Your task to perform on an android device: turn on showing notifications on the lock screen Image 0: 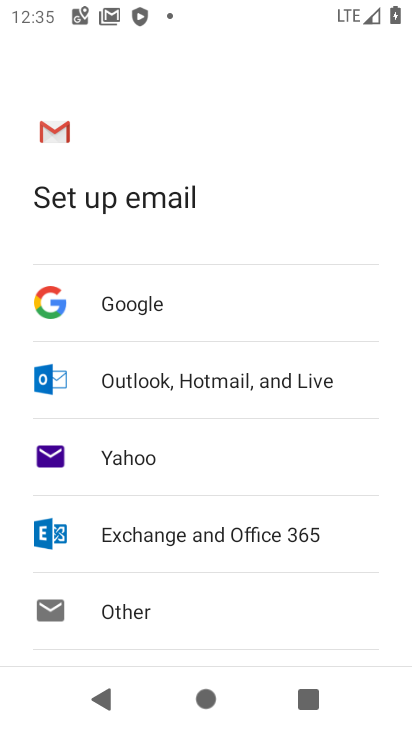
Step 0: press home button
Your task to perform on an android device: turn on showing notifications on the lock screen Image 1: 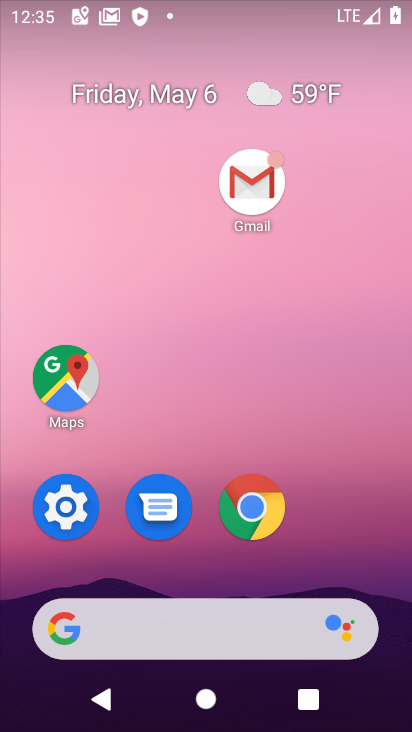
Step 1: click (63, 501)
Your task to perform on an android device: turn on showing notifications on the lock screen Image 2: 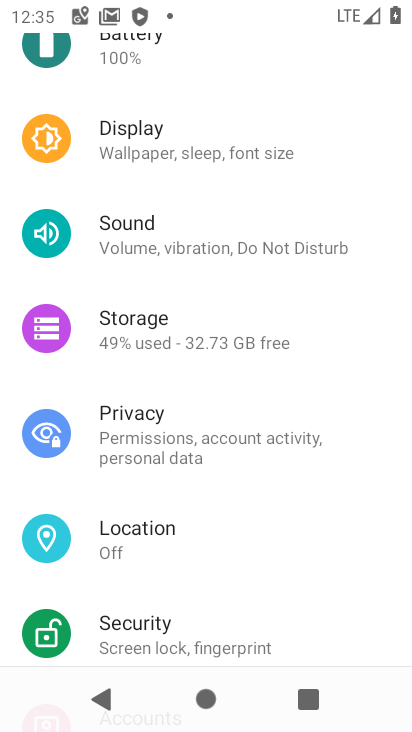
Step 2: drag from (316, 200) to (360, 661)
Your task to perform on an android device: turn on showing notifications on the lock screen Image 3: 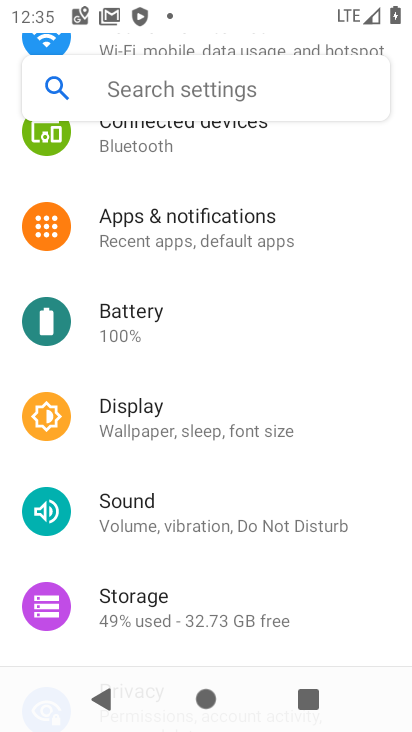
Step 3: click (198, 216)
Your task to perform on an android device: turn on showing notifications on the lock screen Image 4: 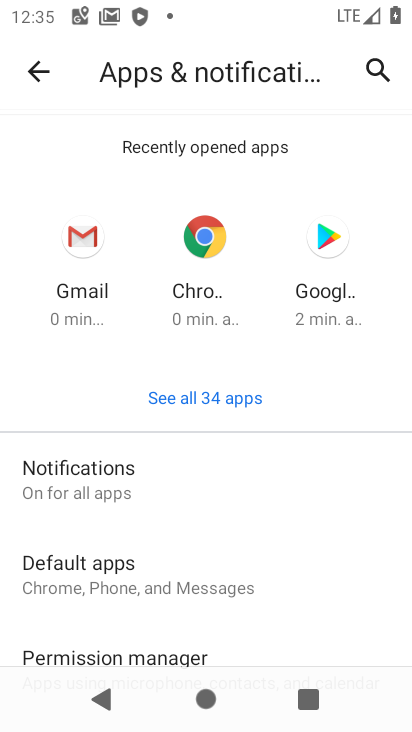
Step 4: click (64, 465)
Your task to perform on an android device: turn on showing notifications on the lock screen Image 5: 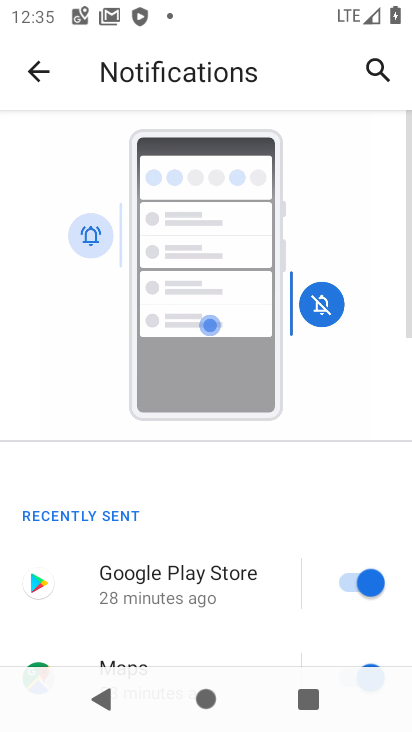
Step 5: drag from (269, 444) to (268, 163)
Your task to perform on an android device: turn on showing notifications on the lock screen Image 6: 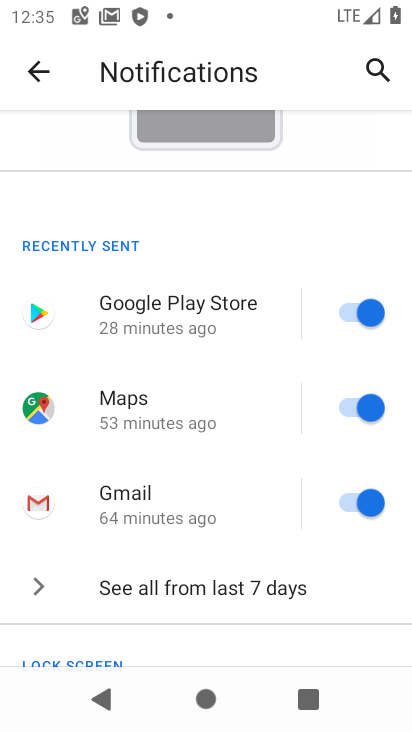
Step 6: drag from (298, 502) to (345, 223)
Your task to perform on an android device: turn on showing notifications on the lock screen Image 7: 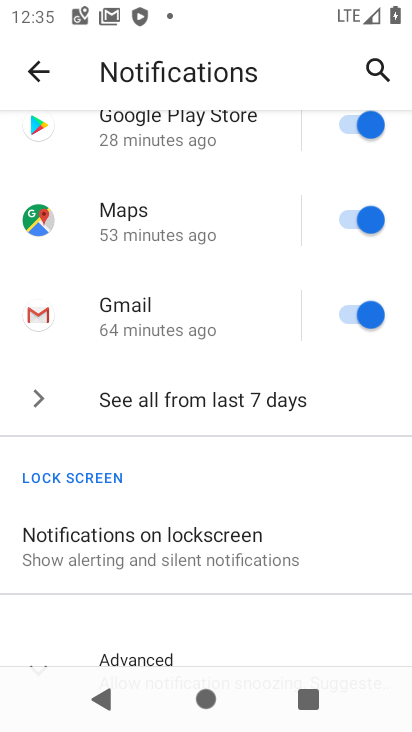
Step 7: click (157, 535)
Your task to perform on an android device: turn on showing notifications on the lock screen Image 8: 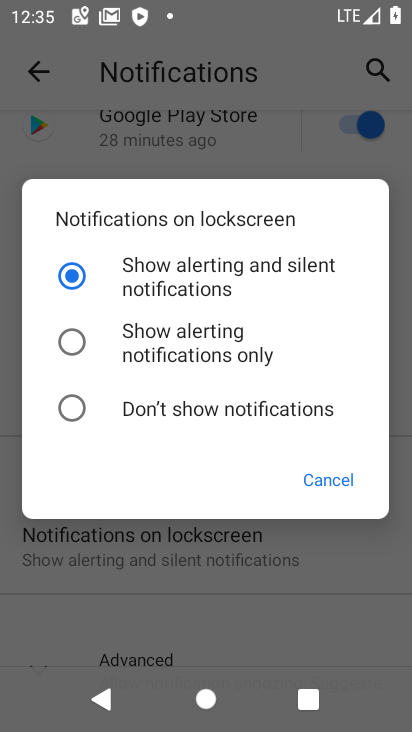
Step 8: task complete